Your task to perform on an android device: Add logitech g pro to the cart on walmart.com, then select checkout. Image 0: 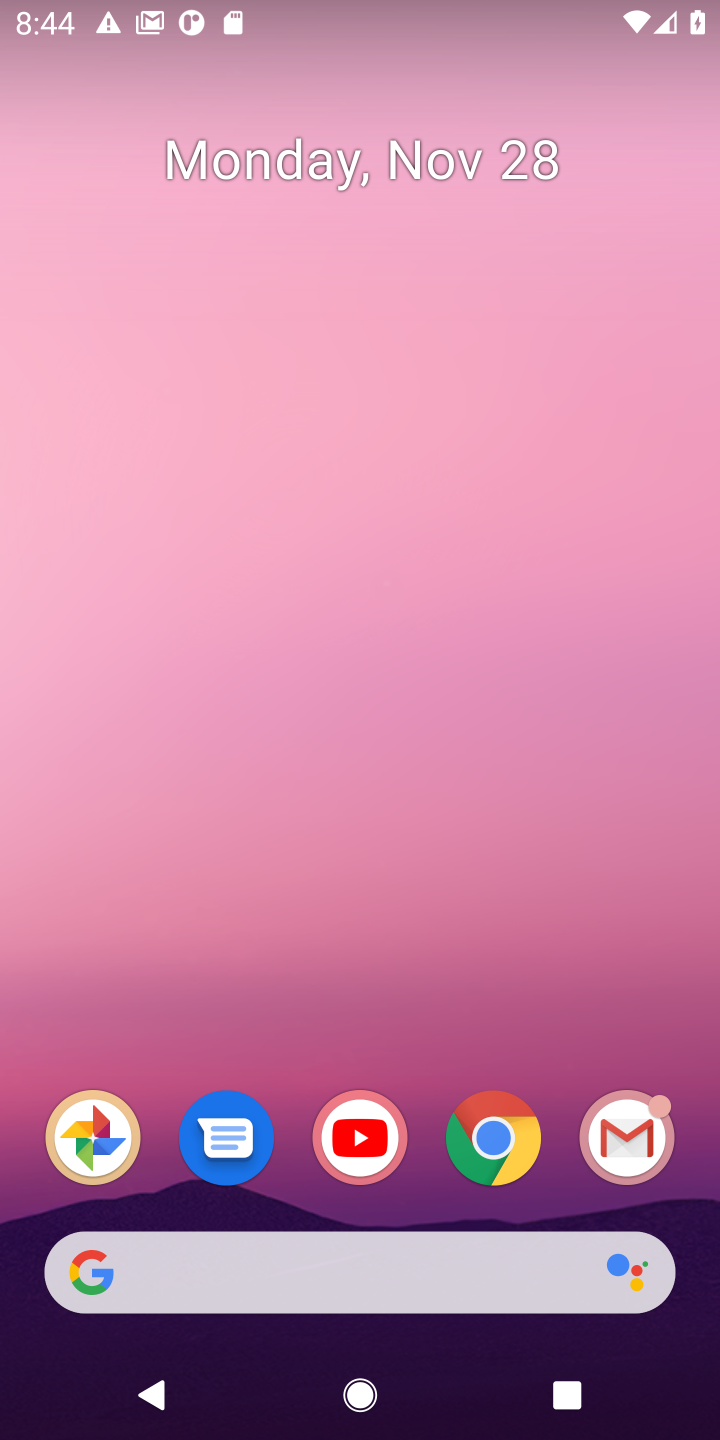
Step 0: click (502, 1138)
Your task to perform on an android device: Add logitech g pro to the cart on walmart.com, then select checkout. Image 1: 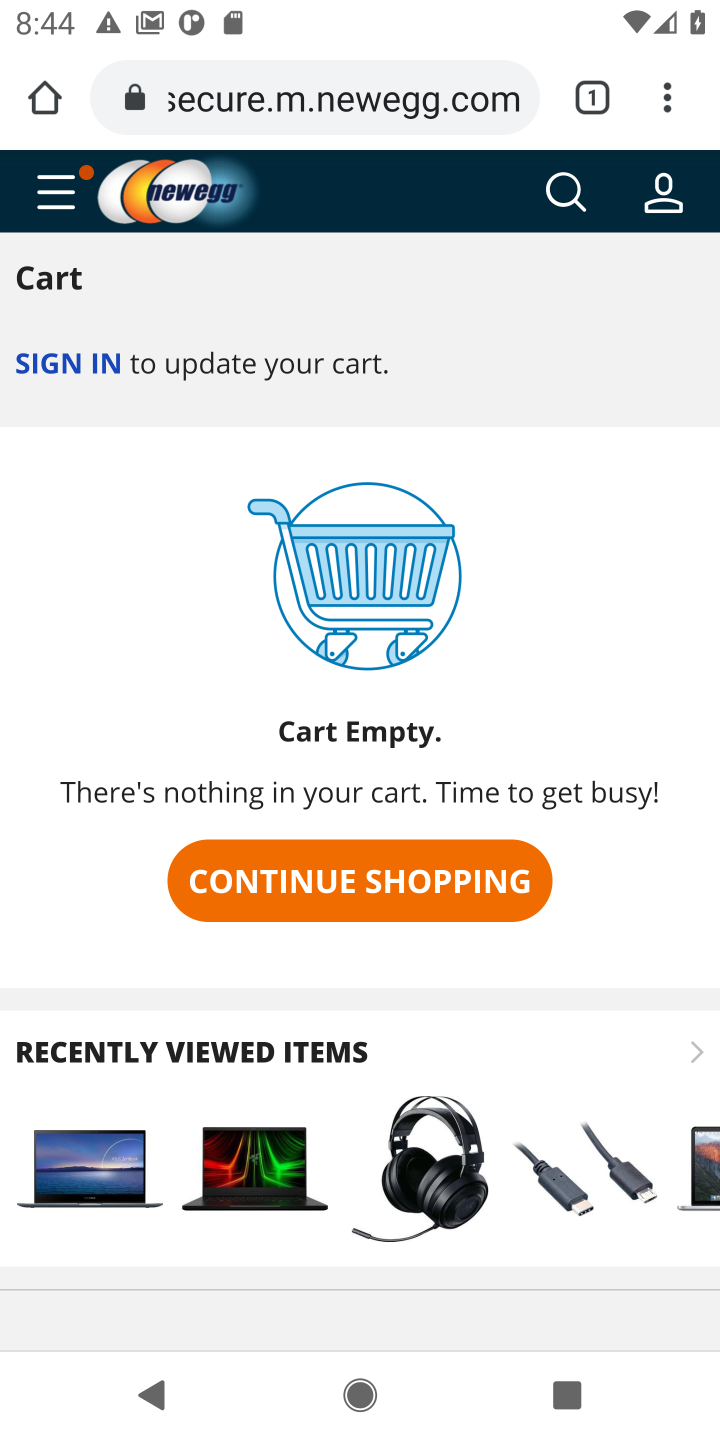
Step 1: click (339, 113)
Your task to perform on an android device: Add logitech g pro to the cart on walmart.com, then select checkout. Image 2: 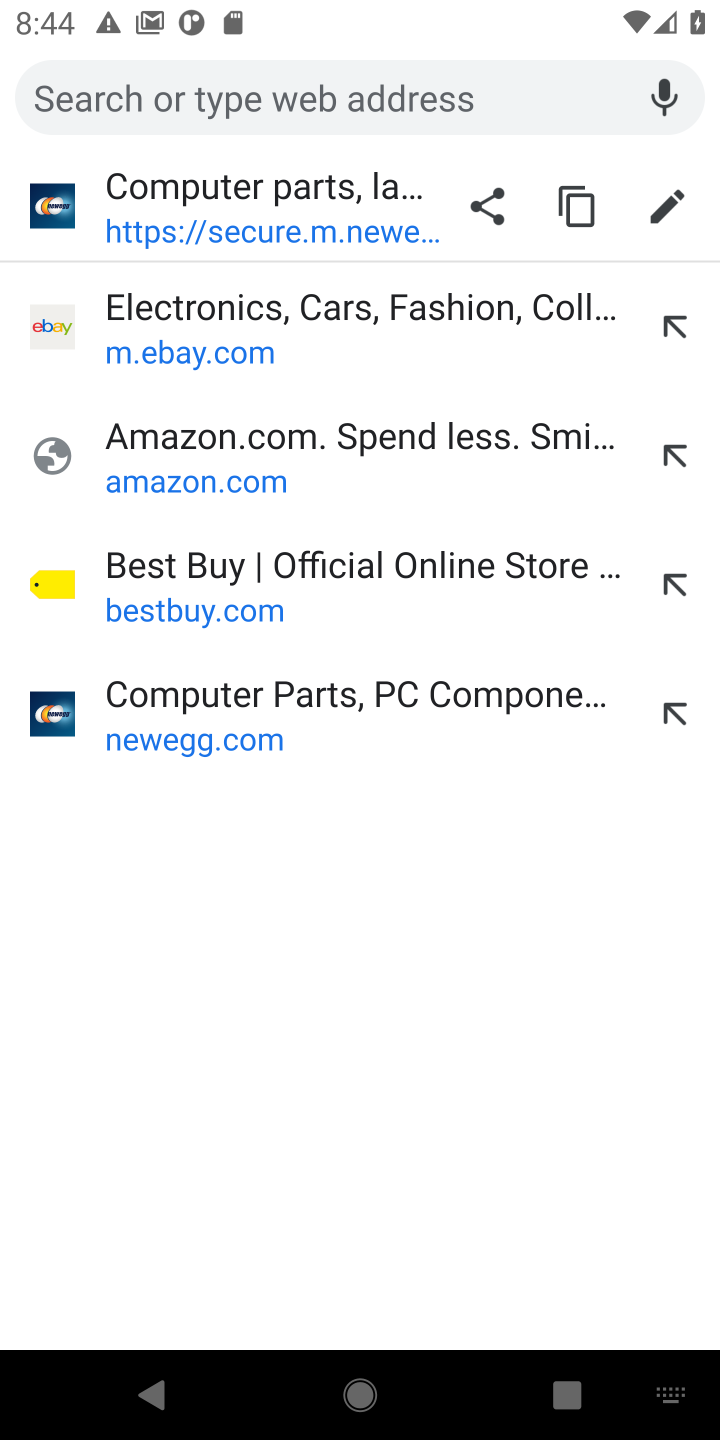
Step 2: type "walmart.com"
Your task to perform on an android device: Add logitech g pro to the cart on walmart.com, then select checkout. Image 3: 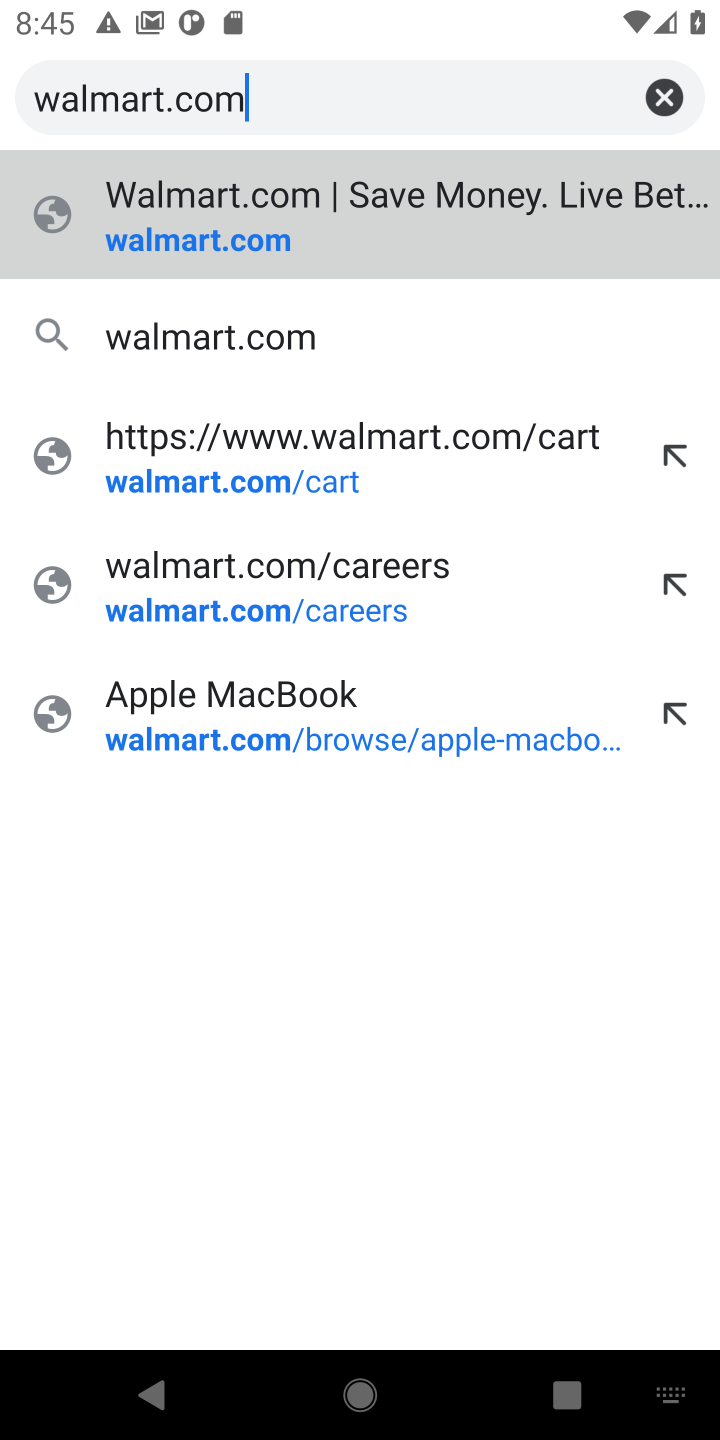
Step 3: click (161, 225)
Your task to perform on an android device: Add logitech g pro to the cart on walmart.com, then select checkout. Image 4: 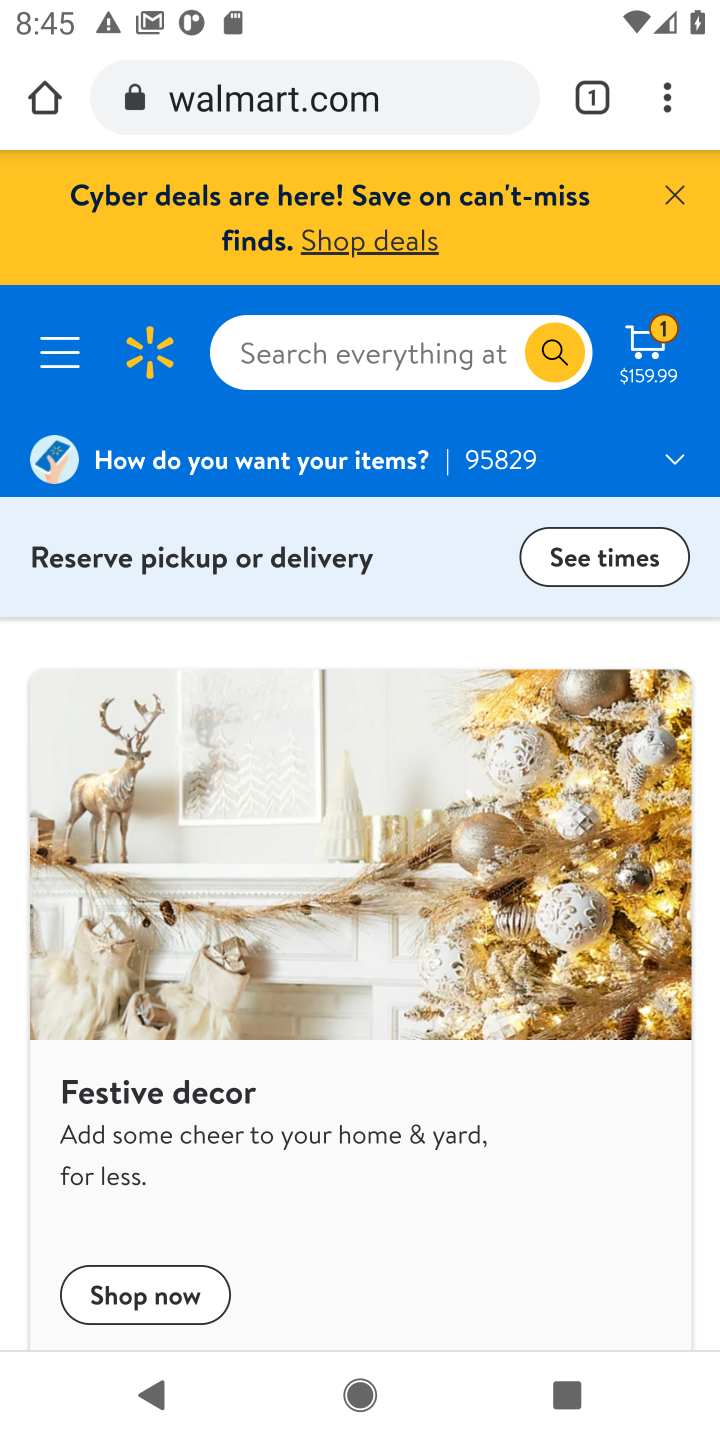
Step 4: click (355, 348)
Your task to perform on an android device: Add logitech g pro to the cart on walmart.com, then select checkout. Image 5: 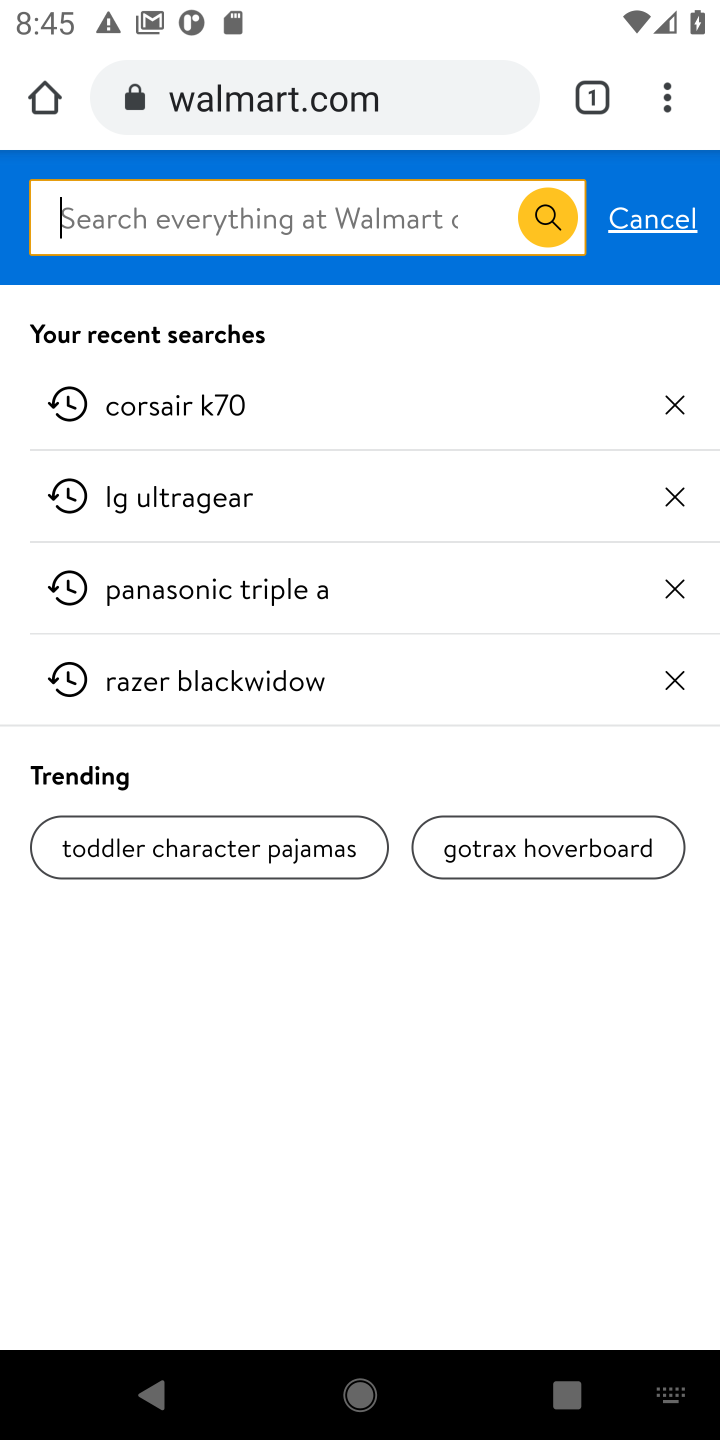
Step 5: type " logitech g pro "
Your task to perform on an android device: Add logitech g pro to the cart on walmart.com, then select checkout. Image 6: 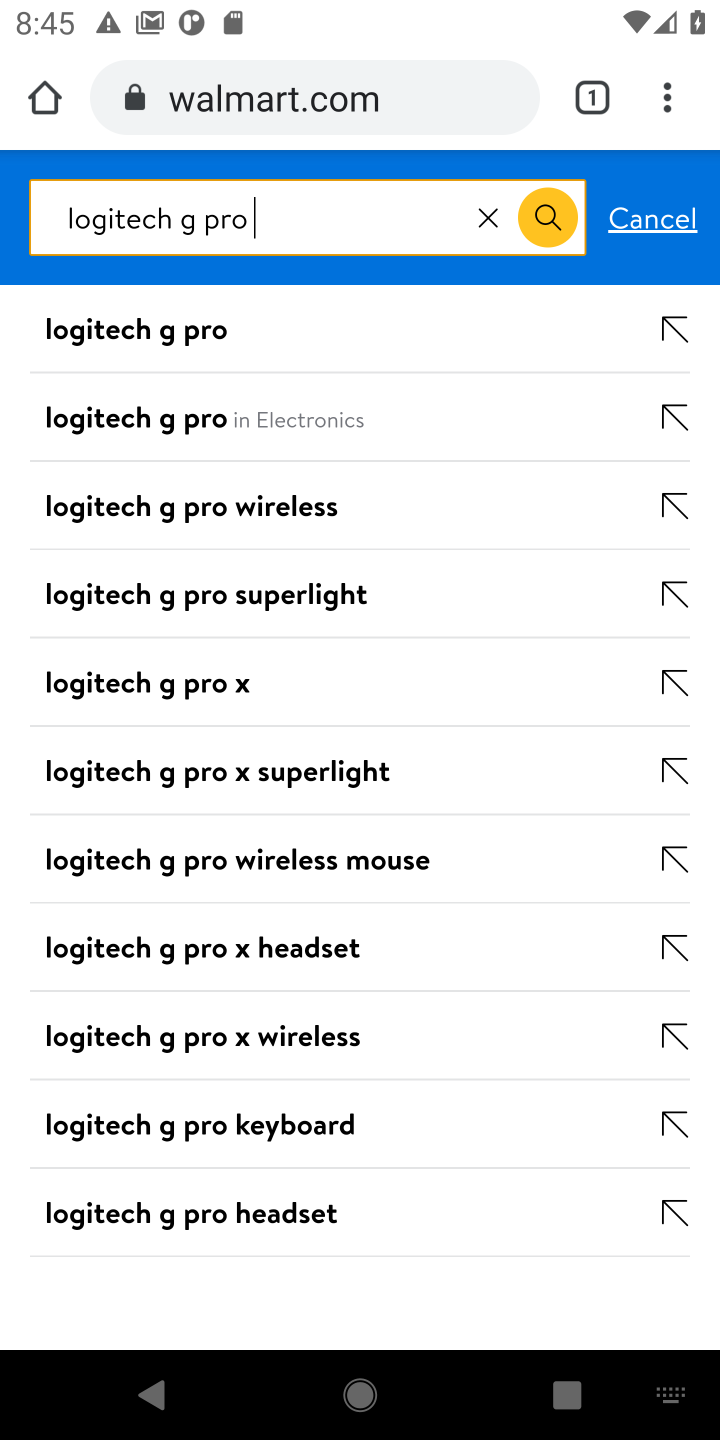
Step 6: click (176, 331)
Your task to perform on an android device: Add logitech g pro to the cart on walmart.com, then select checkout. Image 7: 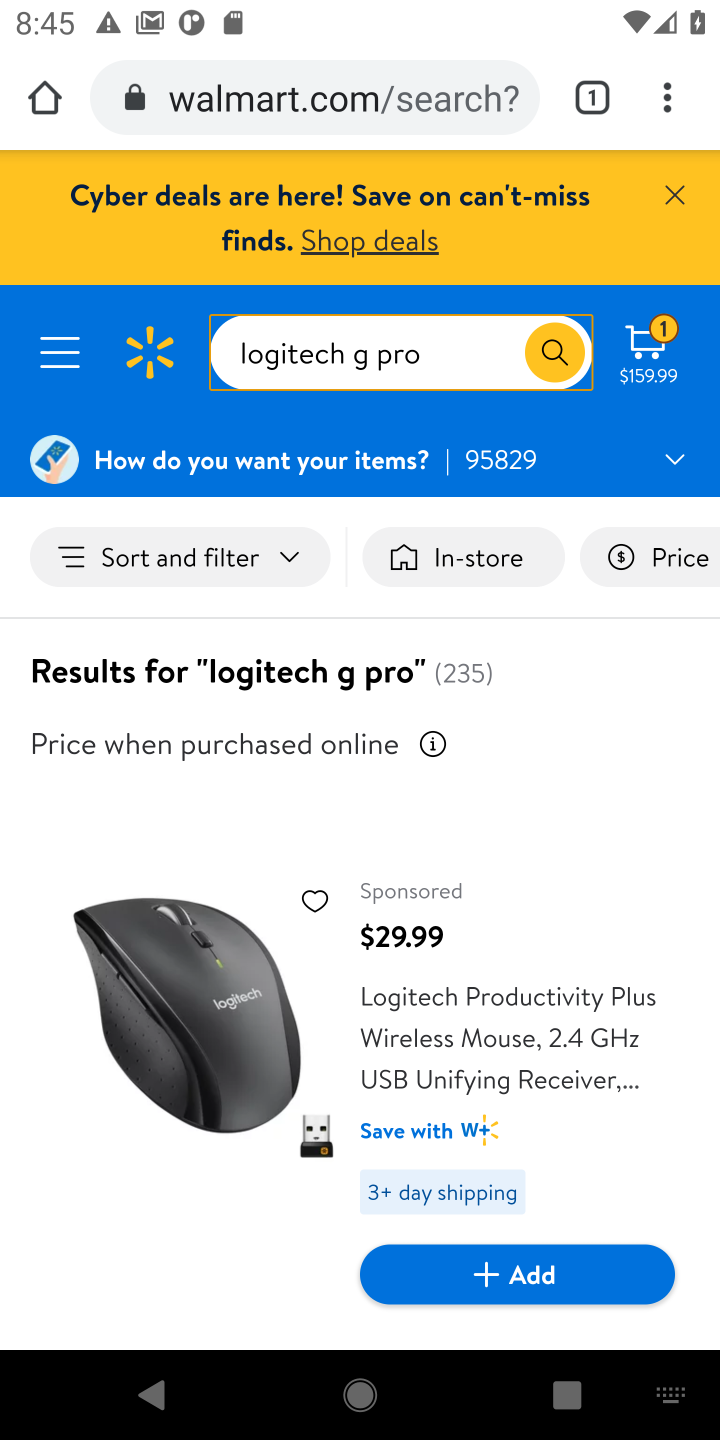
Step 7: drag from (199, 947) to (102, 371)
Your task to perform on an android device: Add logitech g pro to the cart on walmart.com, then select checkout. Image 8: 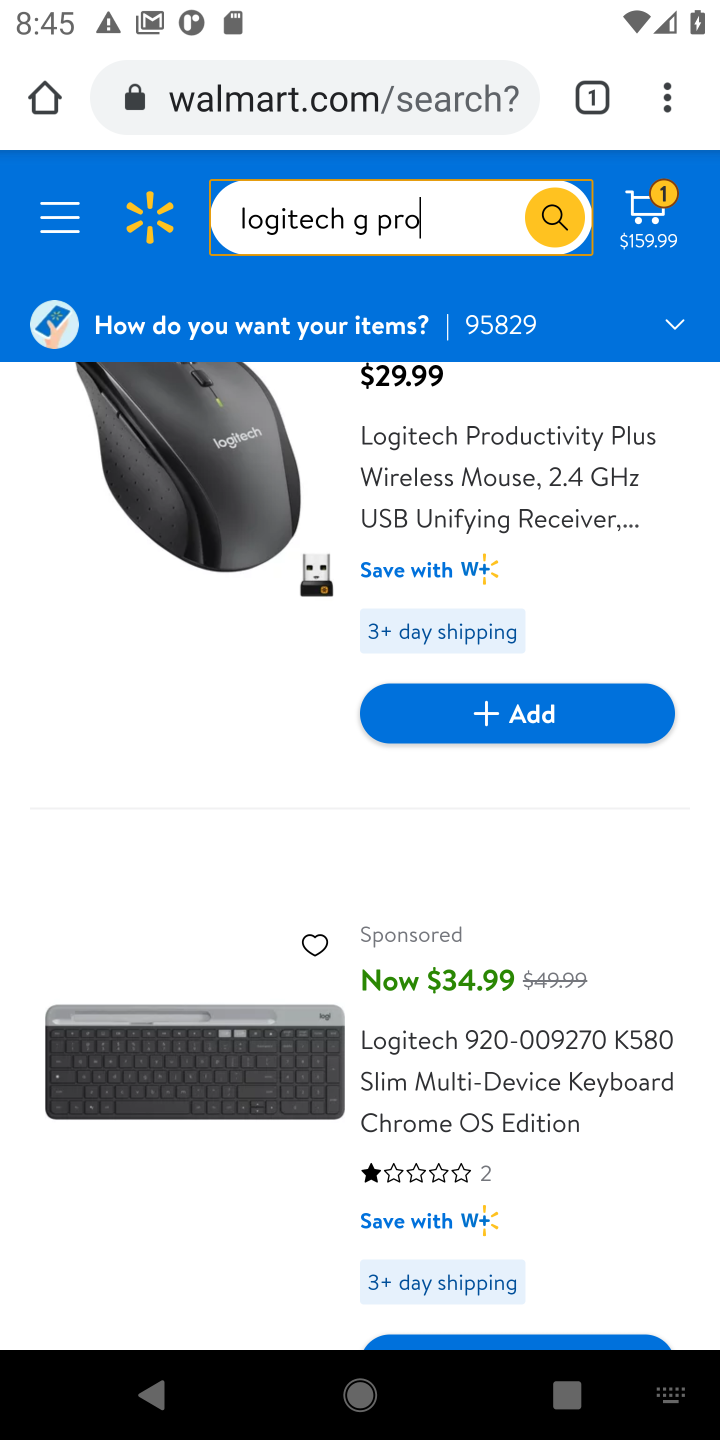
Step 8: drag from (236, 1171) to (189, 671)
Your task to perform on an android device: Add logitech g pro to the cart on walmart.com, then select checkout. Image 9: 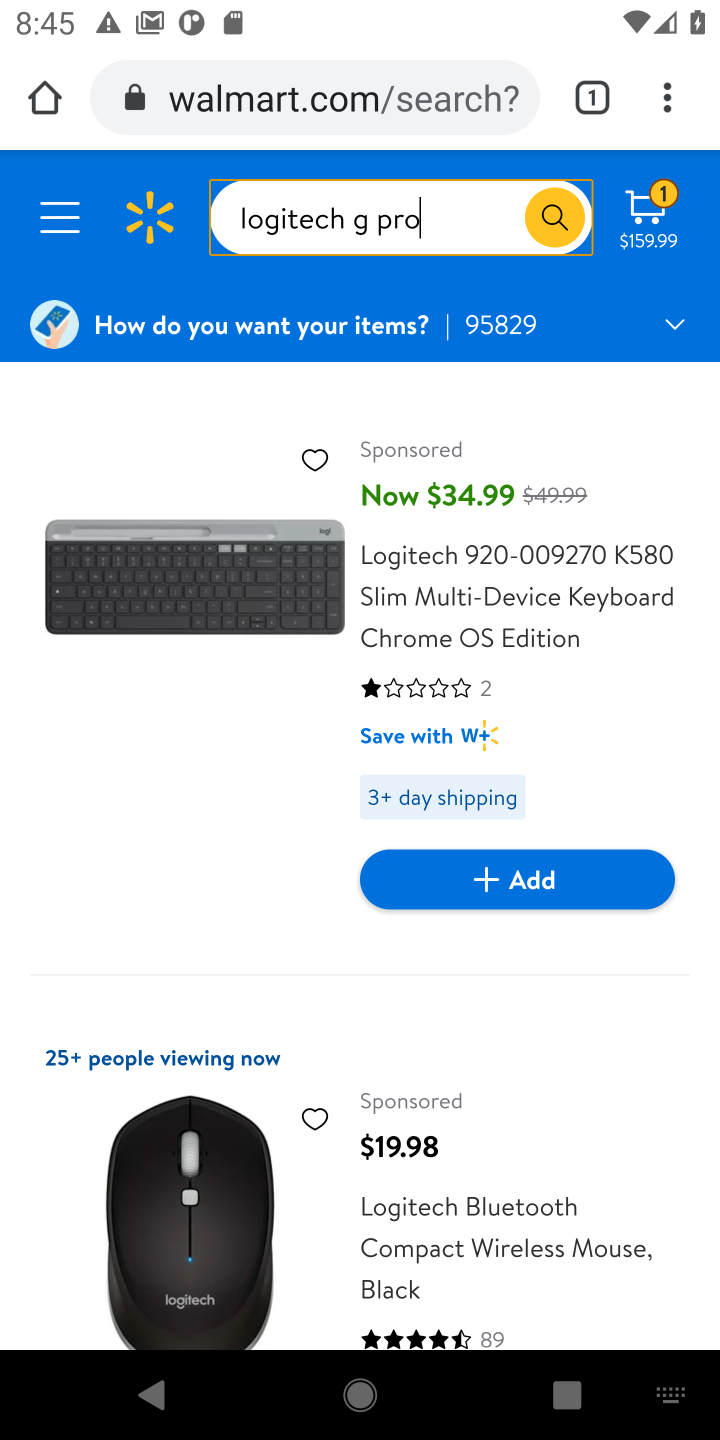
Step 9: drag from (191, 1036) to (216, 570)
Your task to perform on an android device: Add logitech g pro to the cart on walmart.com, then select checkout. Image 10: 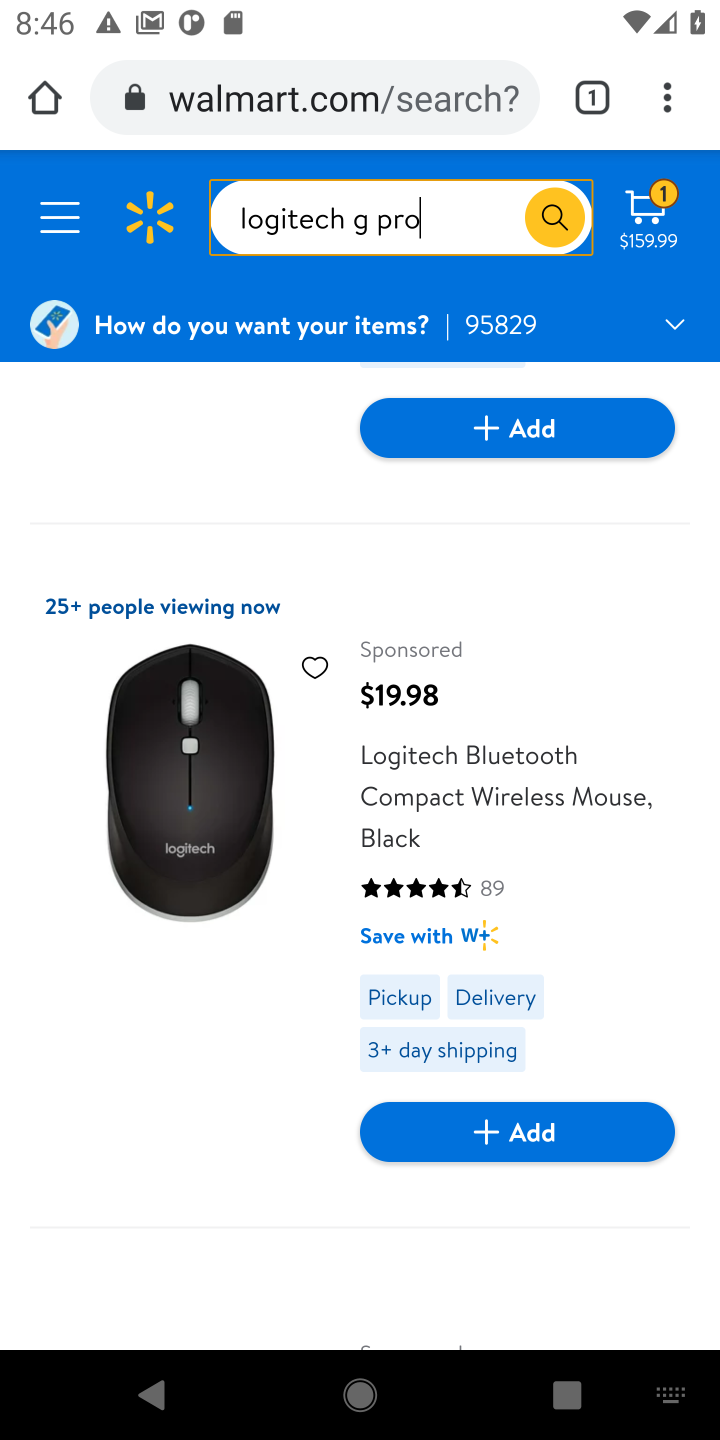
Step 10: drag from (204, 988) to (128, 383)
Your task to perform on an android device: Add logitech g pro to the cart on walmart.com, then select checkout. Image 11: 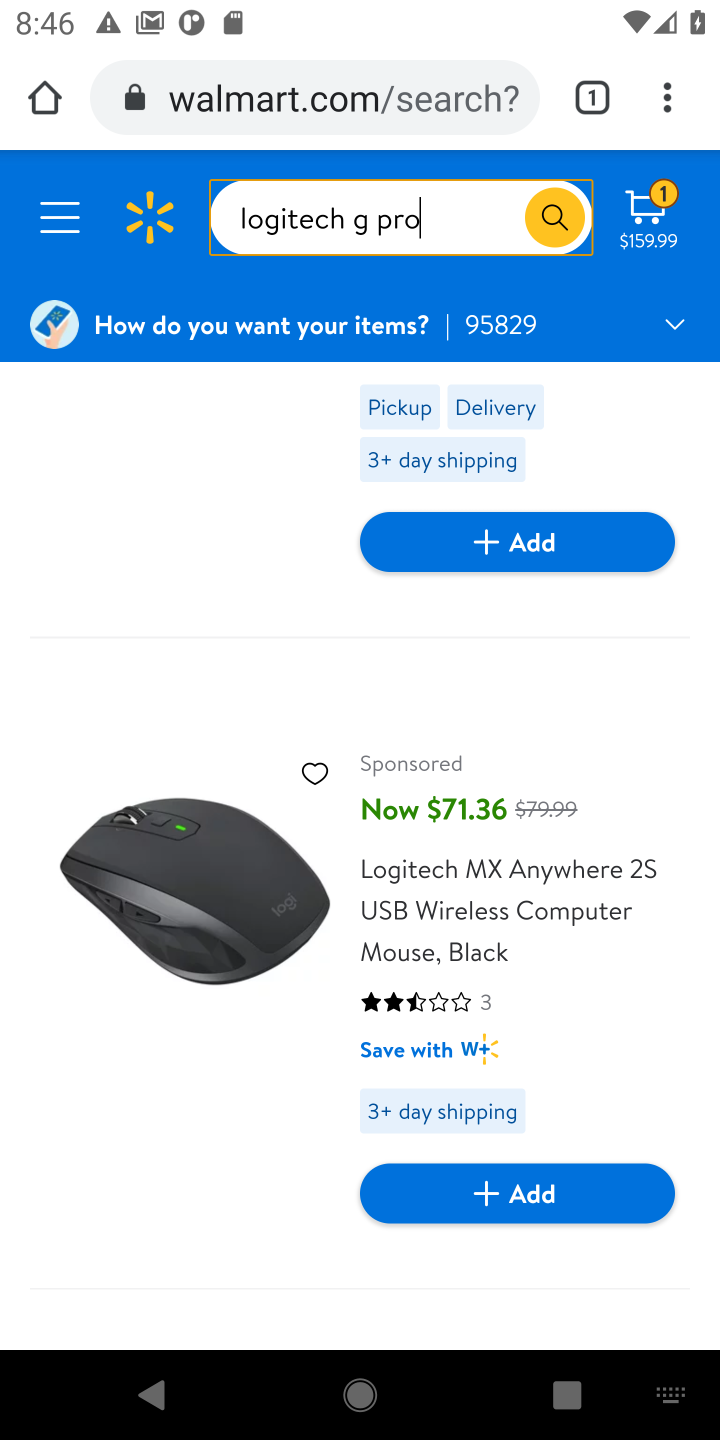
Step 11: drag from (219, 896) to (173, 501)
Your task to perform on an android device: Add logitech g pro to the cart on walmart.com, then select checkout. Image 12: 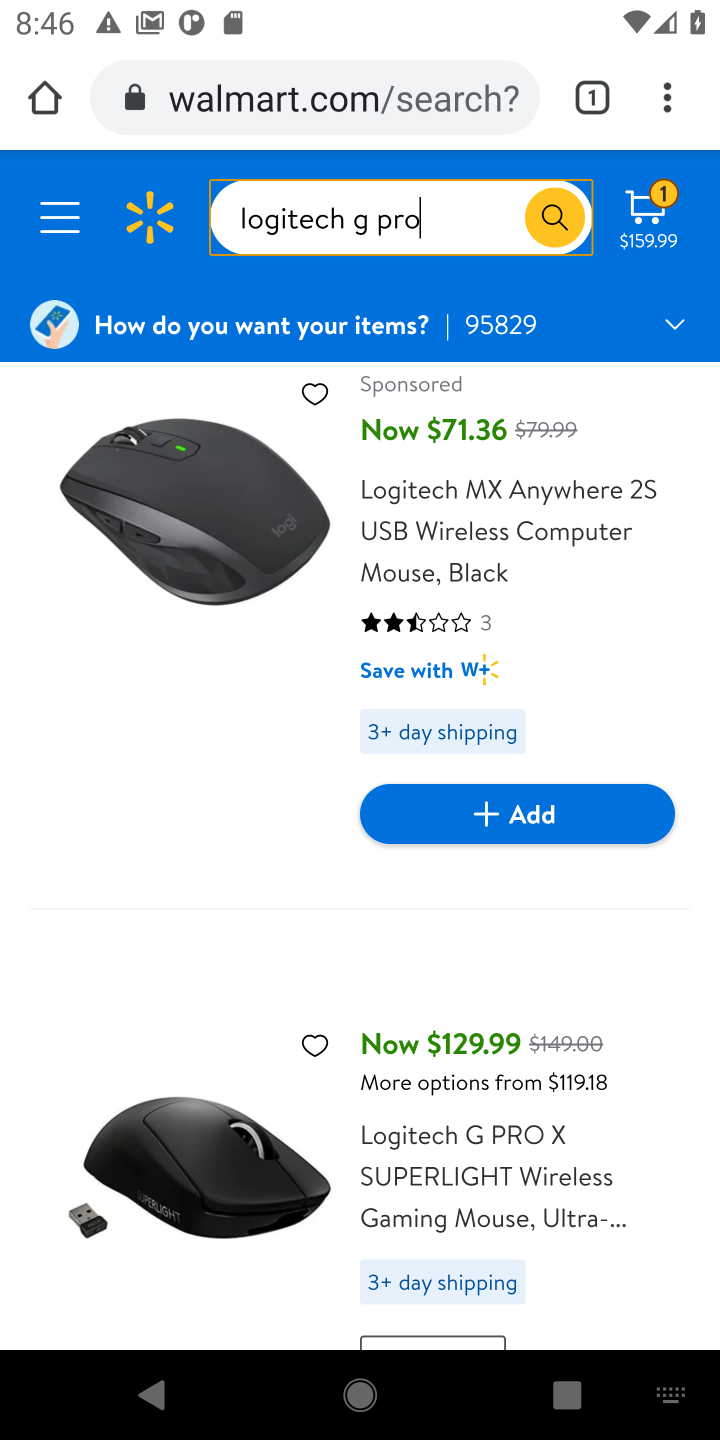
Step 12: drag from (258, 1049) to (177, 592)
Your task to perform on an android device: Add logitech g pro to the cart on walmart.com, then select checkout. Image 13: 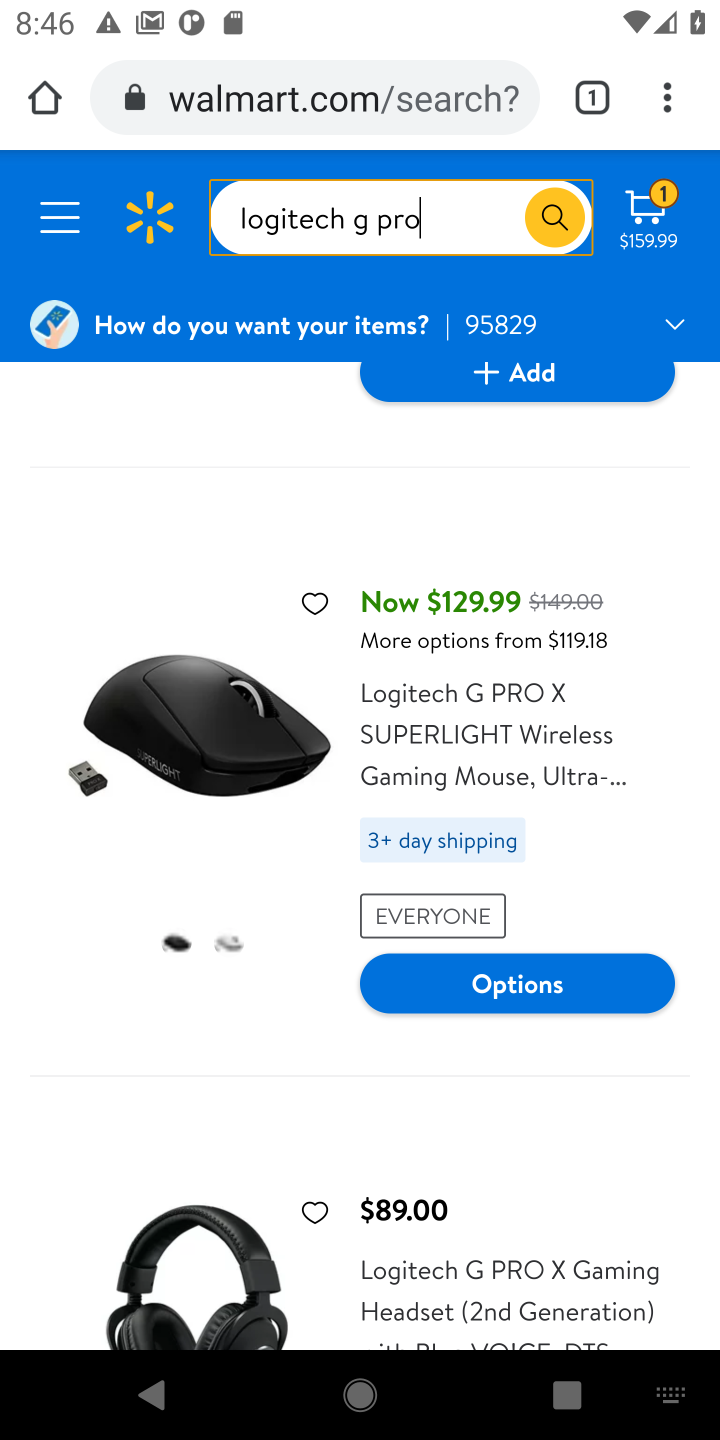
Step 13: click (252, 783)
Your task to perform on an android device: Add logitech g pro to the cart on walmart.com, then select checkout. Image 14: 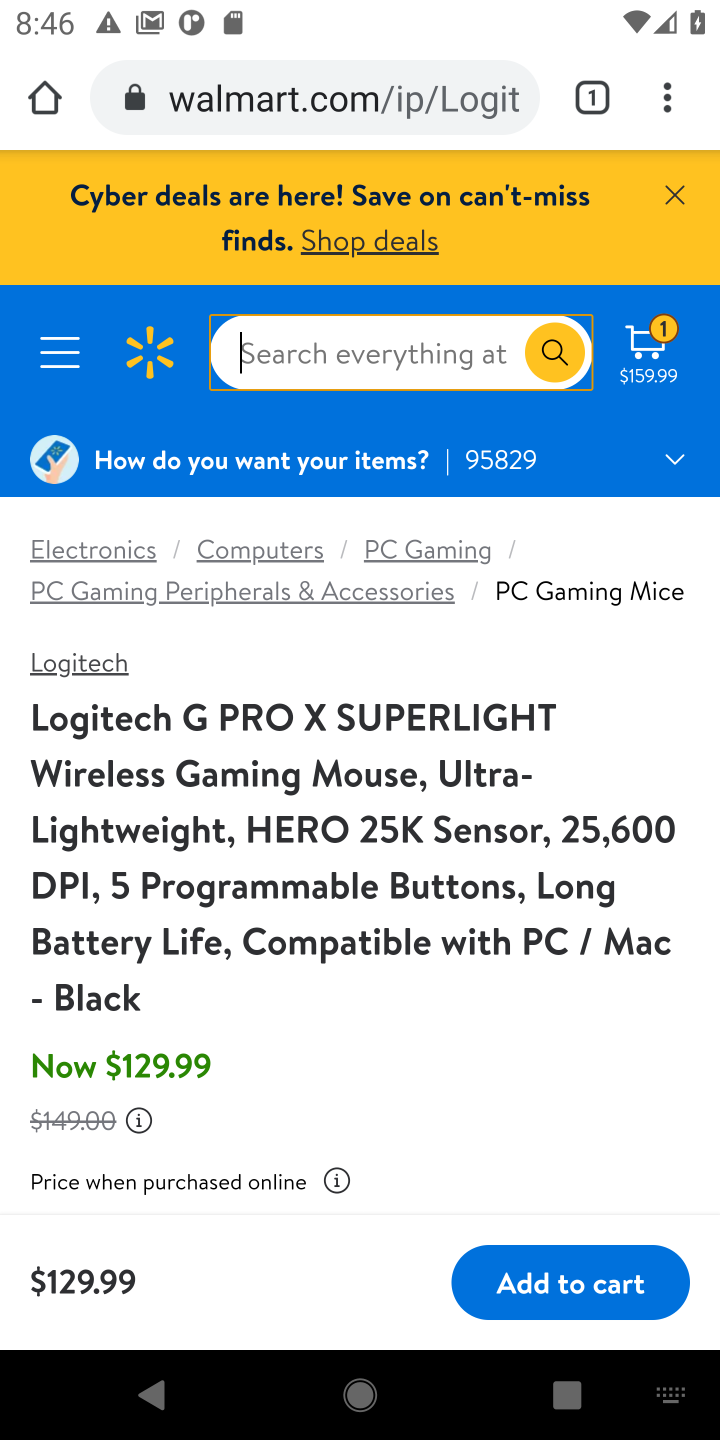
Step 14: click (575, 1285)
Your task to perform on an android device: Add logitech g pro to the cart on walmart.com, then select checkout. Image 15: 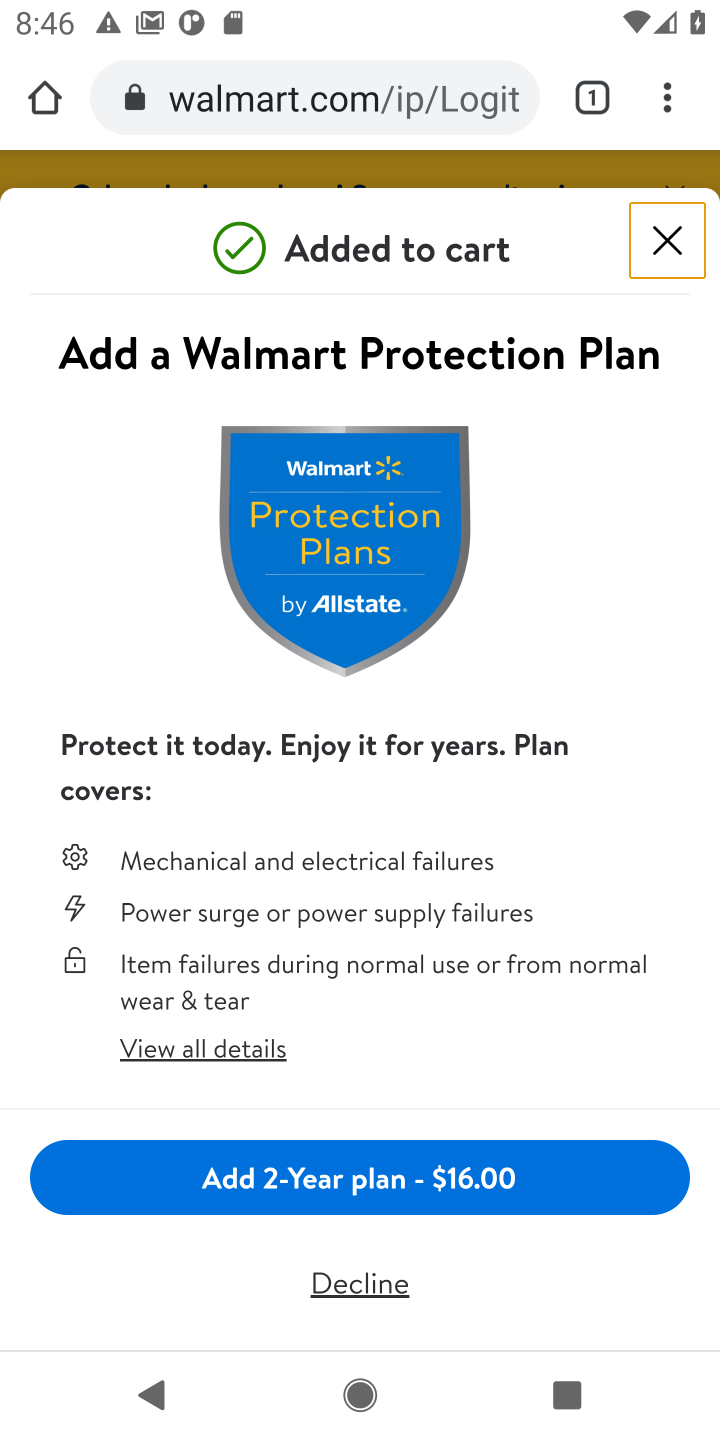
Step 15: click (658, 246)
Your task to perform on an android device: Add logitech g pro to the cart on walmart.com, then select checkout. Image 16: 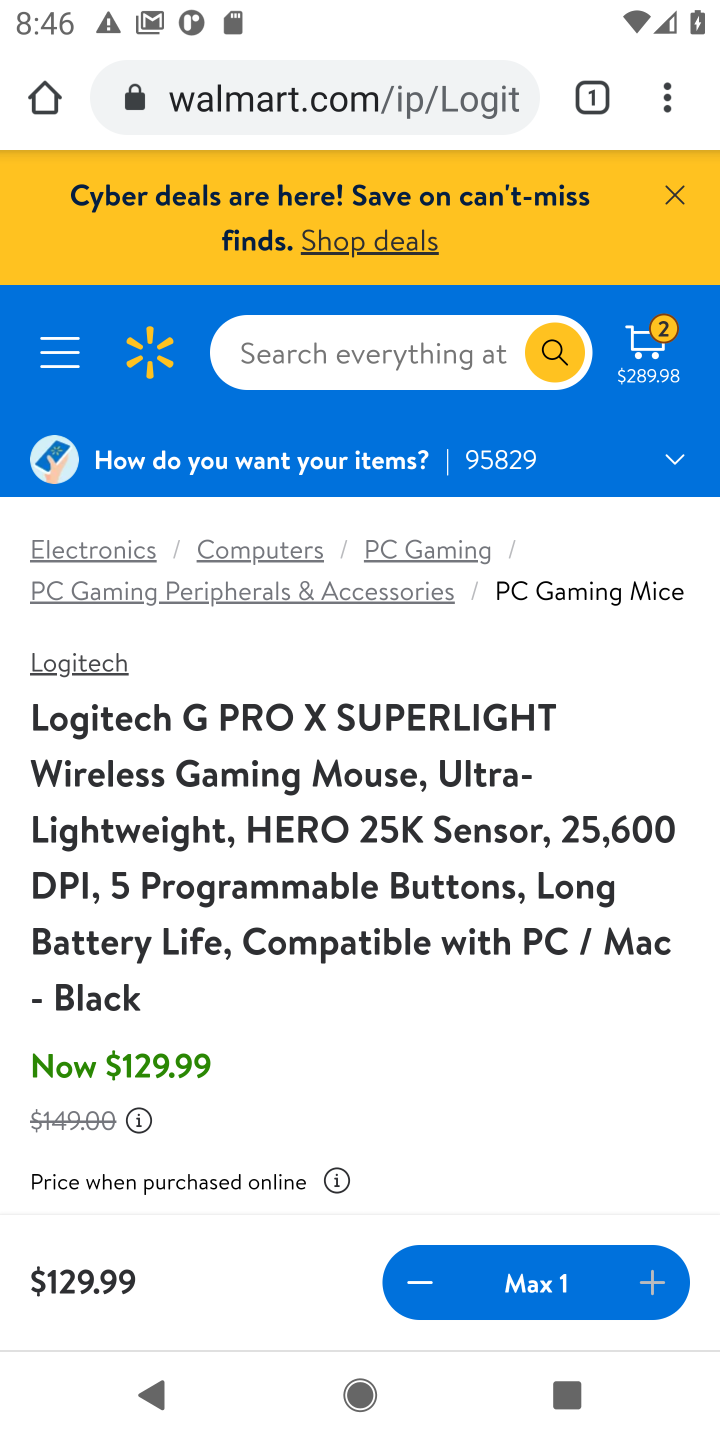
Step 16: click (636, 371)
Your task to perform on an android device: Add logitech g pro to the cart on walmart.com, then select checkout. Image 17: 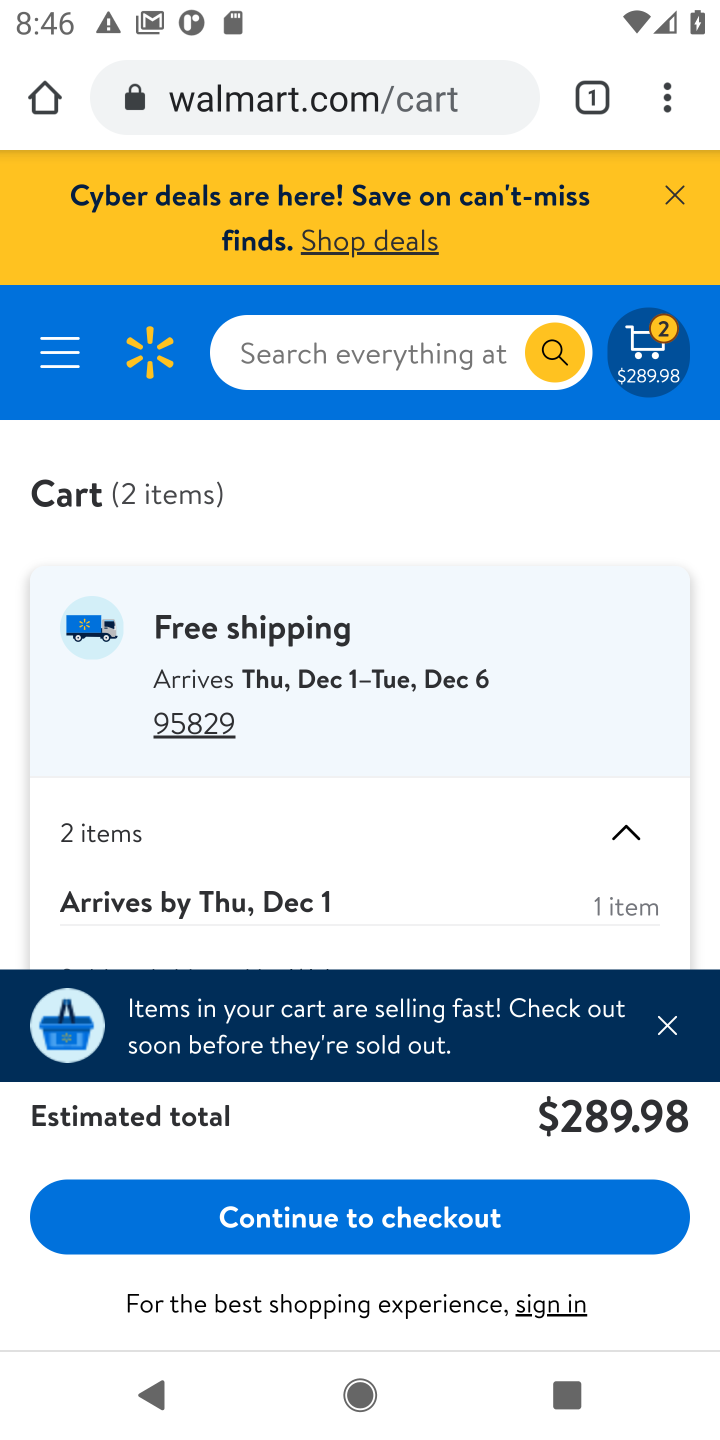
Step 17: click (466, 1229)
Your task to perform on an android device: Add logitech g pro to the cart on walmart.com, then select checkout. Image 18: 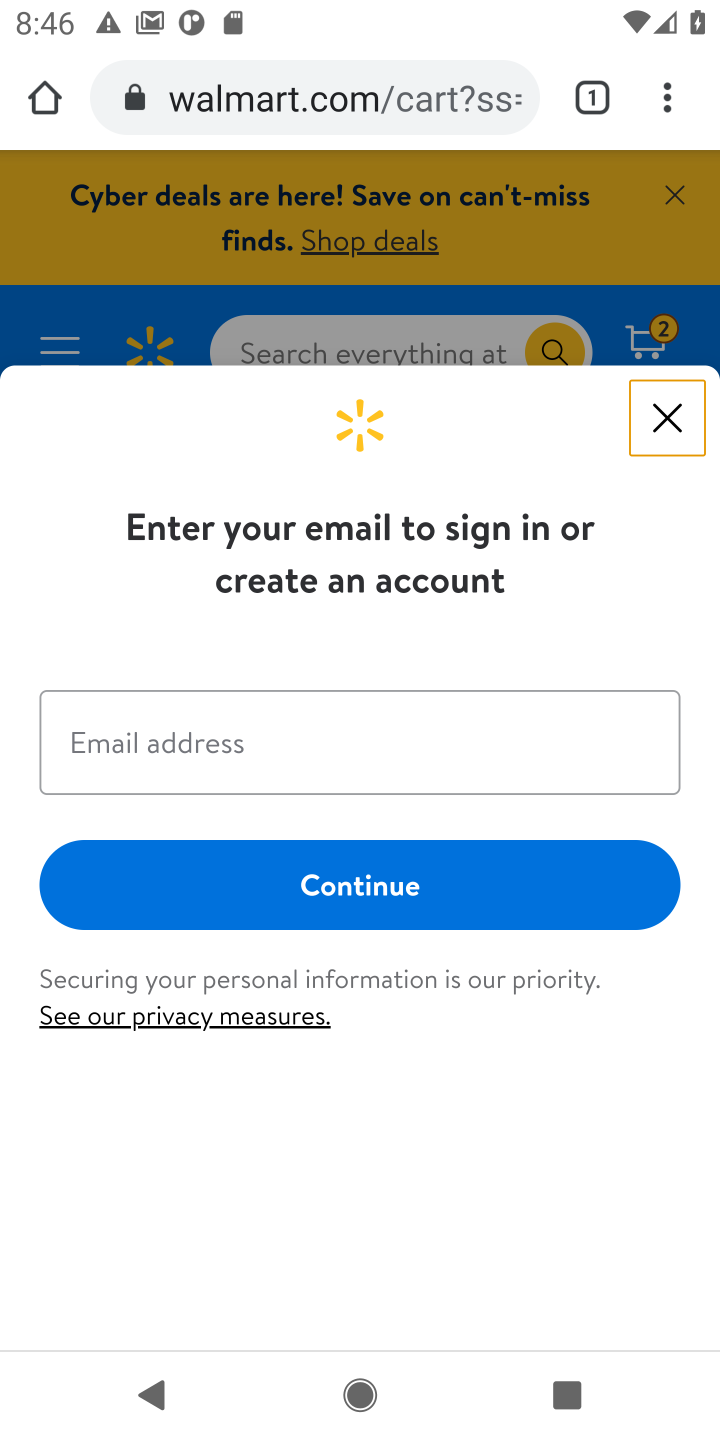
Step 18: task complete